Your task to perform on an android device: make emails show in primary in the gmail app Image 0: 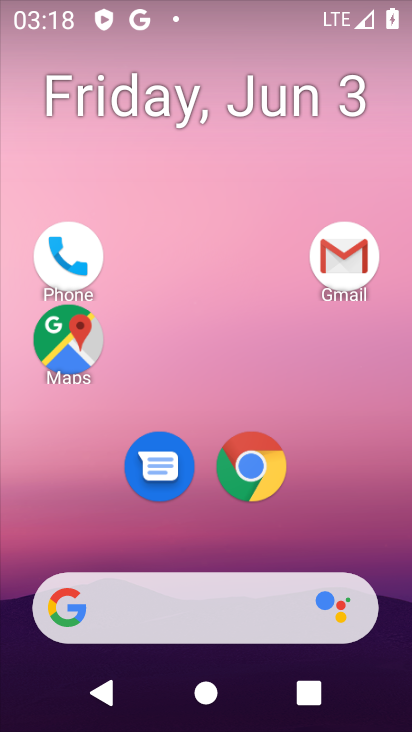
Step 0: click (343, 244)
Your task to perform on an android device: make emails show in primary in the gmail app Image 1: 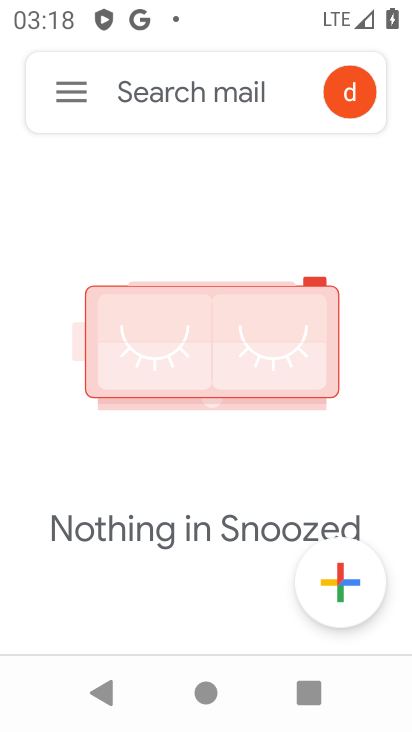
Step 1: click (73, 97)
Your task to perform on an android device: make emails show in primary in the gmail app Image 2: 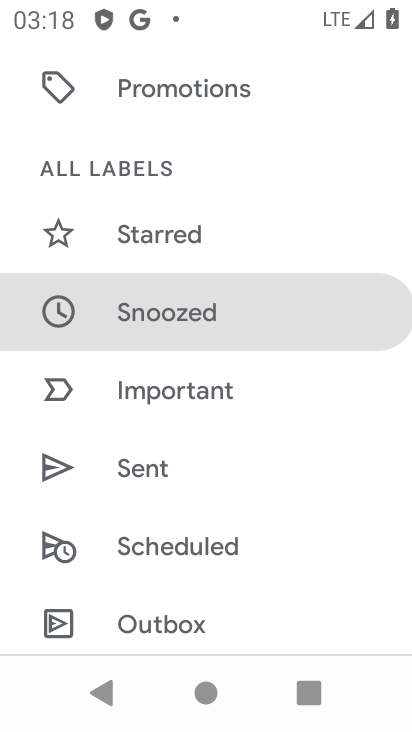
Step 2: drag from (170, 547) to (133, 232)
Your task to perform on an android device: make emails show in primary in the gmail app Image 3: 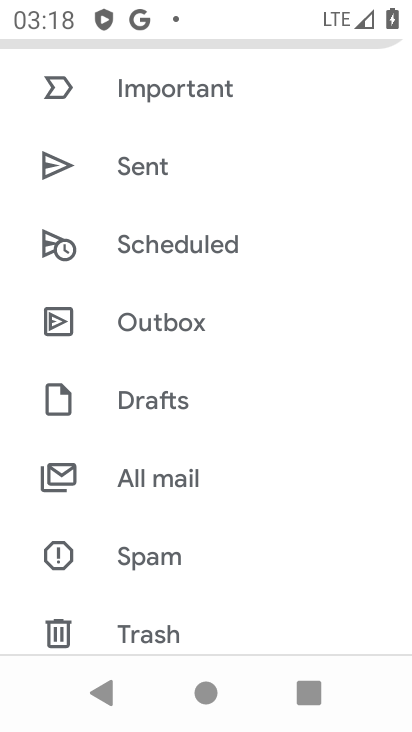
Step 3: drag from (204, 549) to (180, 208)
Your task to perform on an android device: make emails show in primary in the gmail app Image 4: 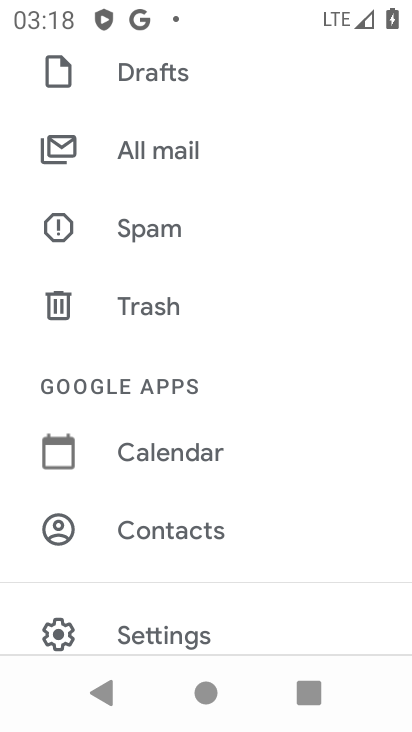
Step 4: drag from (191, 570) to (173, 207)
Your task to perform on an android device: make emails show in primary in the gmail app Image 5: 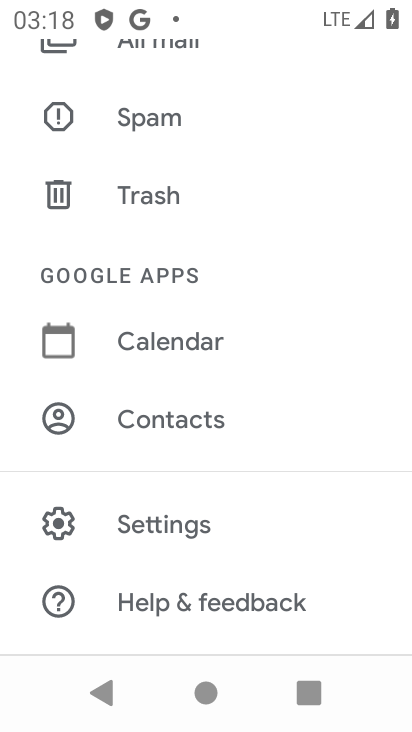
Step 5: click (180, 522)
Your task to perform on an android device: make emails show in primary in the gmail app Image 6: 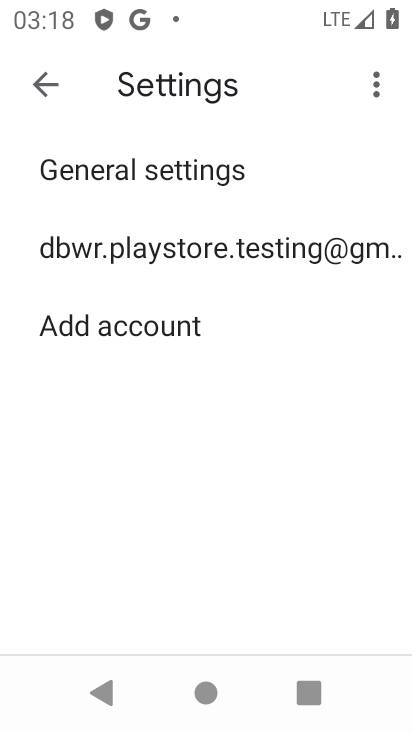
Step 6: click (162, 247)
Your task to perform on an android device: make emails show in primary in the gmail app Image 7: 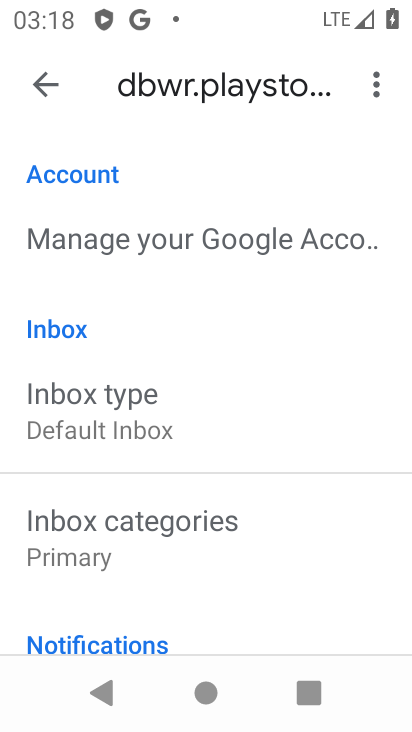
Step 7: task complete